Your task to perform on an android device: turn smart compose on in the gmail app Image 0: 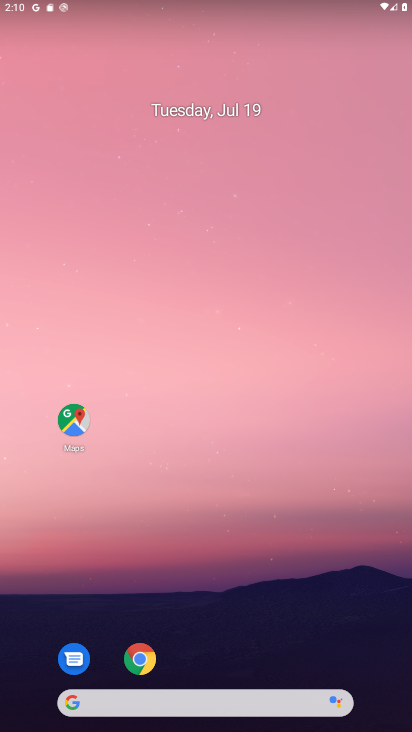
Step 0: drag from (200, 675) to (291, 129)
Your task to perform on an android device: turn smart compose on in the gmail app Image 1: 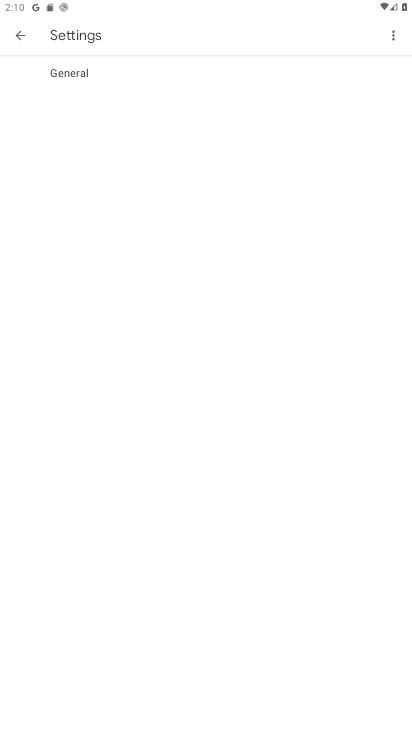
Step 1: press home button
Your task to perform on an android device: turn smart compose on in the gmail app Image 2: 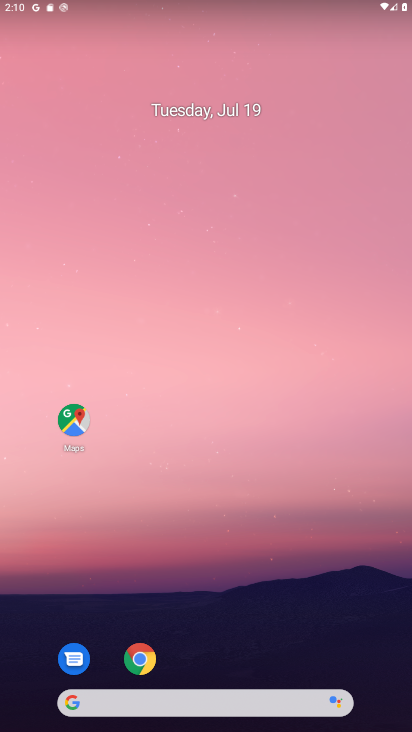
Step 2: drag from (196, 655) to (283, 77)
Your task to perform on an android device: turn smart compose on in the gmail app Image 3: 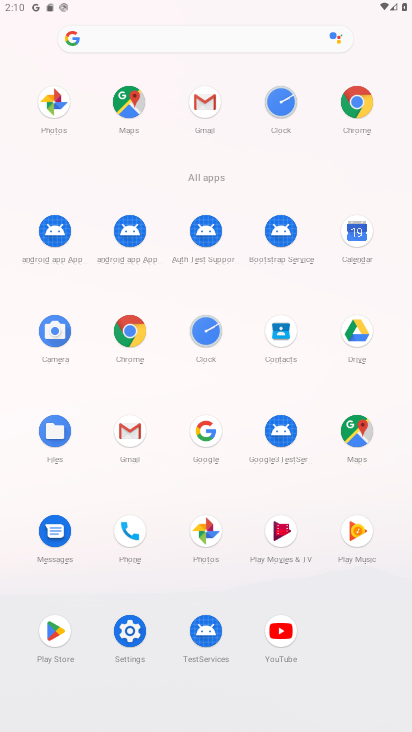
Step 3: click (122, 428)
Your task to perform on an android device: turn smart compose on in the gmail app Image 4: 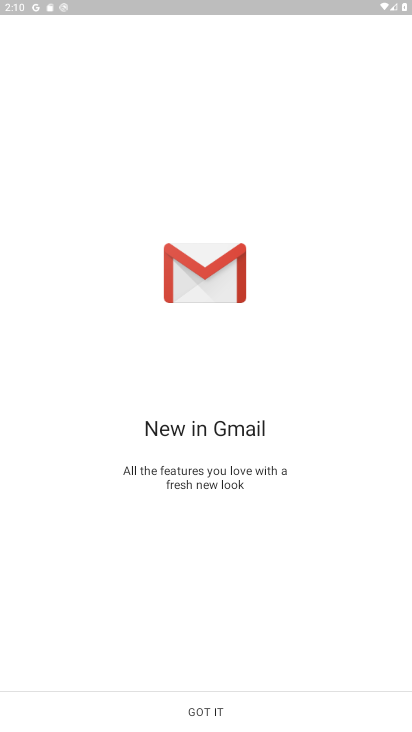
Step 4: click (183, 713)
Your task to perform on an android device: turn smart compose on in the gmail app Image 5: 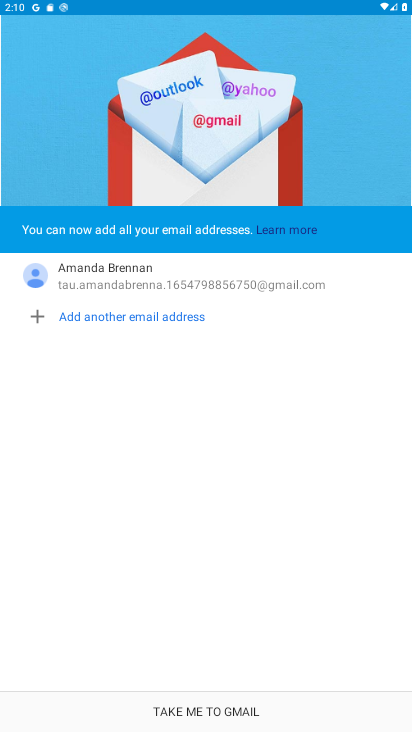
Step 5: click (183, 713)
Your task to perform on an android device: turn smart compose on in the gmail app Image 6: 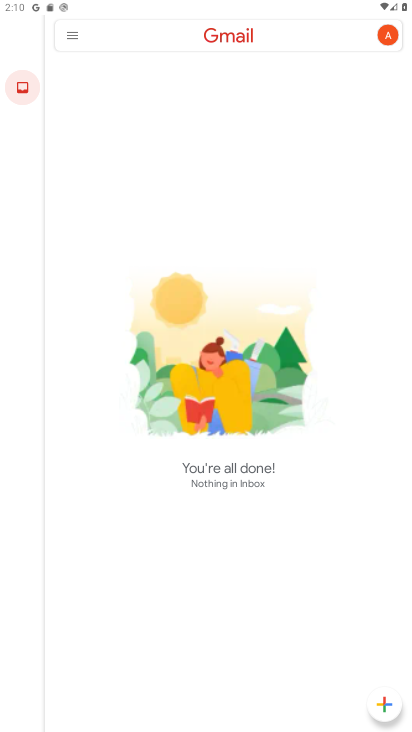
Step 6: click (63, 33)
Your task to perform on an android device: turn smart compose on in the gmail app Image 7: 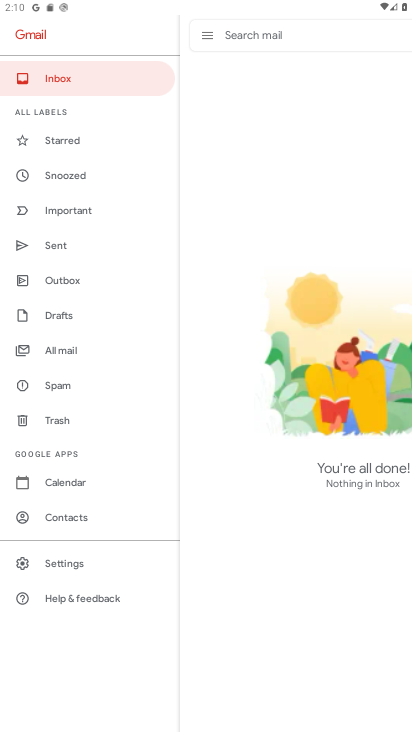
Step 7: click (58, 564)
Your task to perform on an android device: turn smart compose on in the gmail app Image 8: 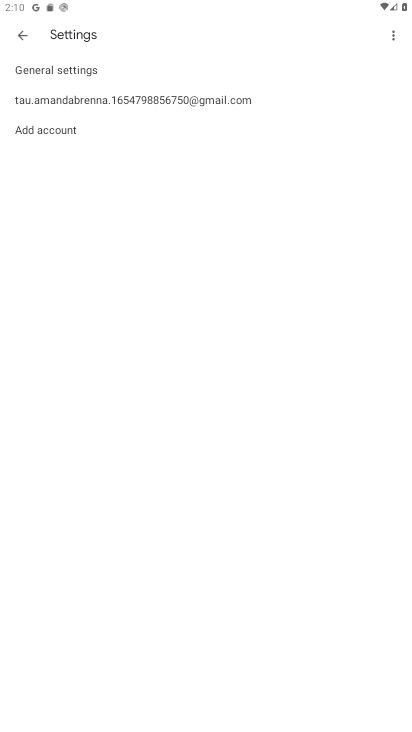
Step 8: click (57, 95)
Your task to perform on an android device: turn smart compose on in the gmail app Image 9: 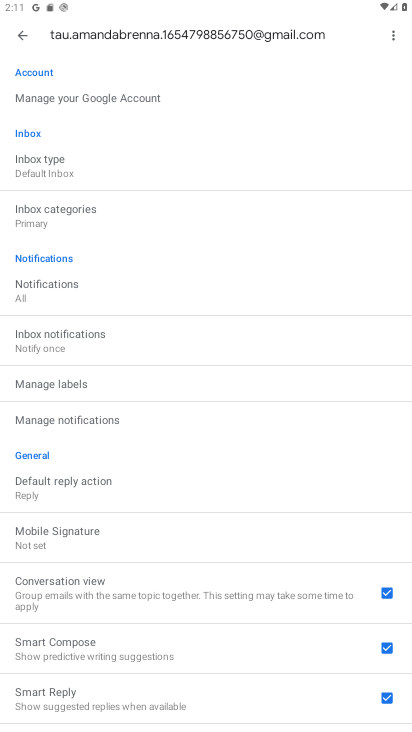
Step 9: task complete